Your task to perform on an android device: Open internet settings Image 0: 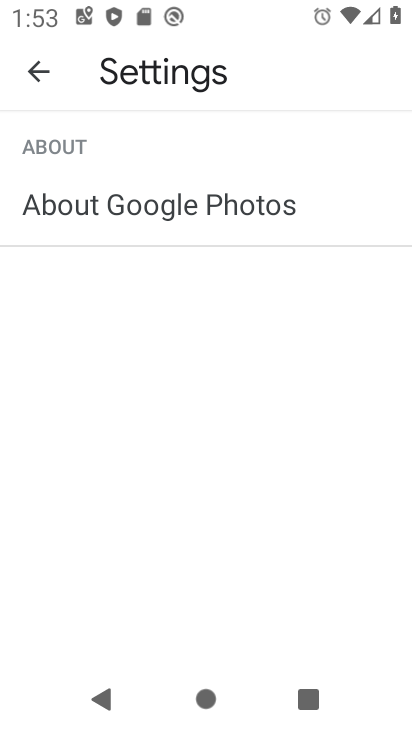
Step 0: press home button
Your task to perform on an android device: Open internet settings Image 1: 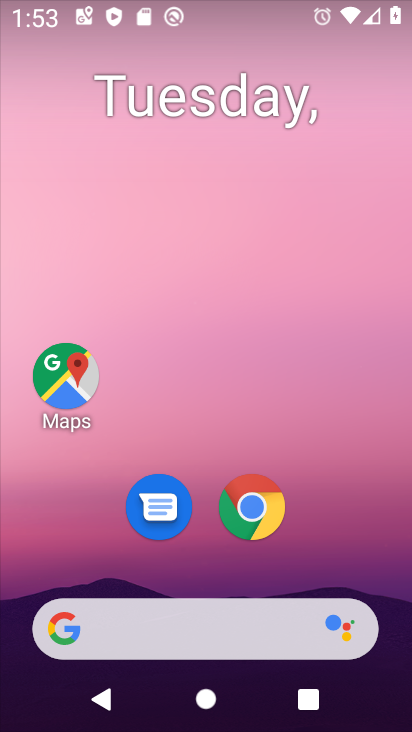
Step 1: drag from (219, 520) to (254, 186)
Your task to perform on an android device: Open internet settings Image 2: 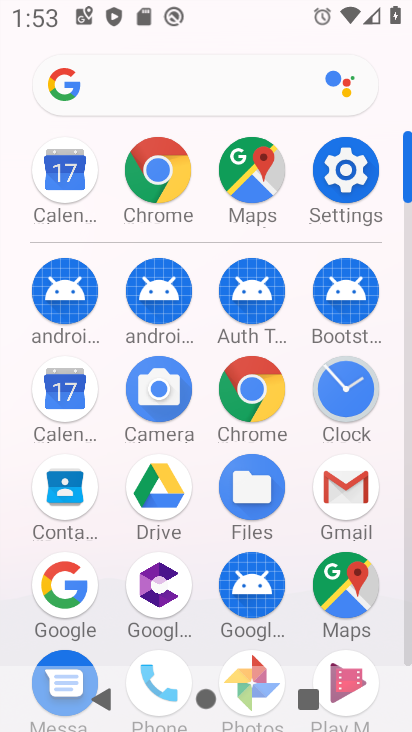
Step 2: click (334, 164)
Your task to perform on an android device: Open internet settings Image 3: 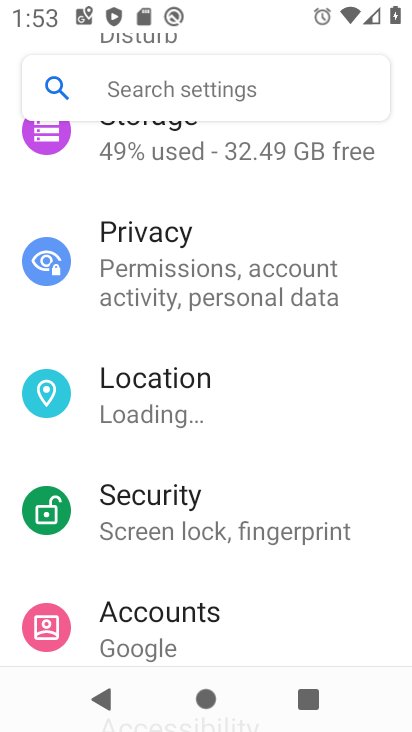
Step 3: drag from (189, 184) to (134, 635)
Your task to perform on an android device: Open internet settings Image 4: 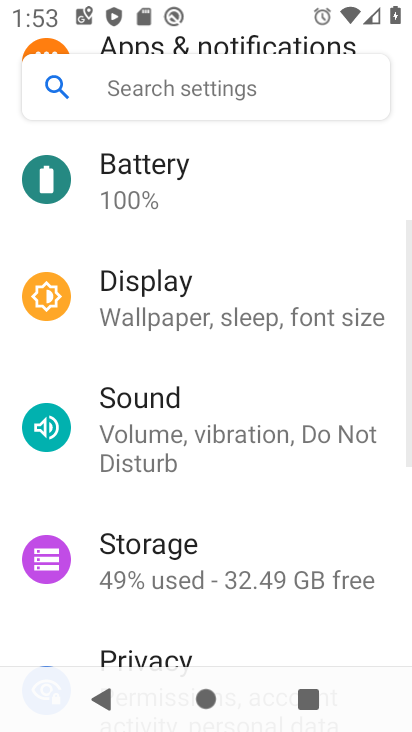
Step 4: drag from (262, 201) to (162, 592)
Your task to perform on an android device: Open internet settings Image 5: 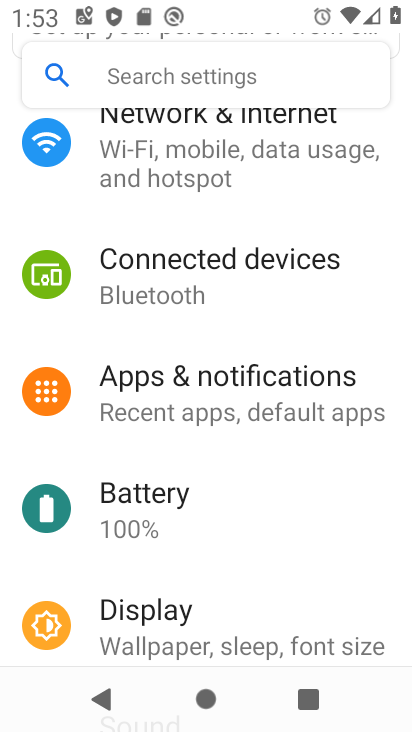
Step 5: drag from (242, 258) to (184, 633)
Your task to perform on an android device: Open internet settings Image 6: 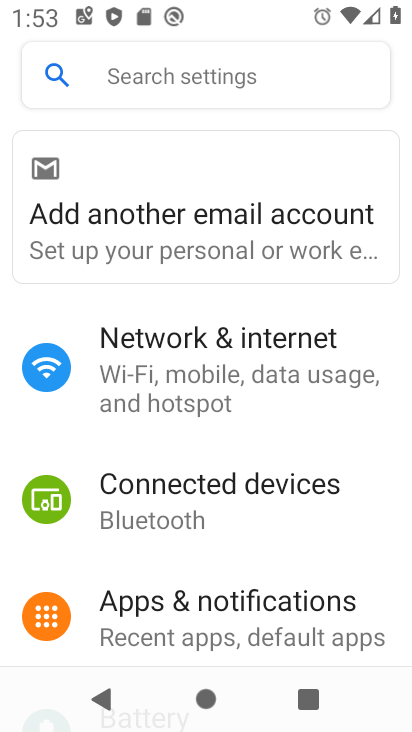
Step 6: click (231, 365)
Your task to perform on an android device: Open internet settings Image 7: 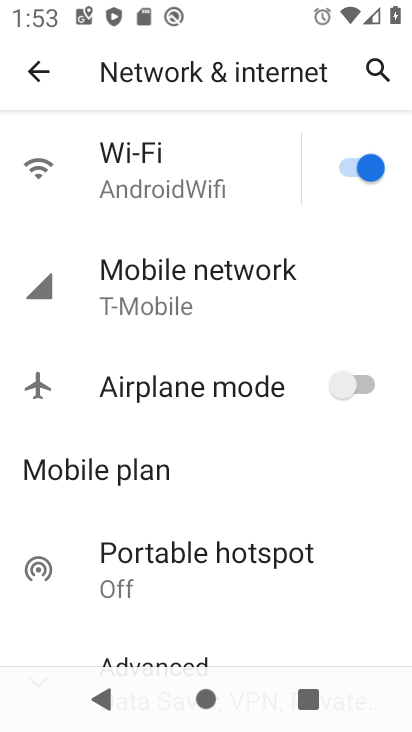
Step 7: task complete